Your task to perform on an android device: stop showing notifications on the lock screen Image 0: 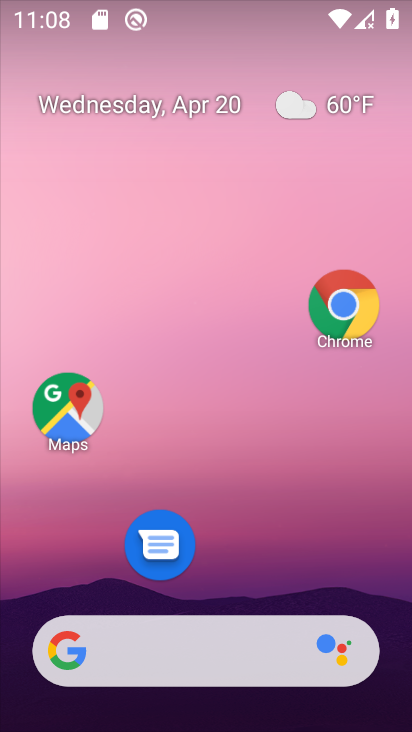
Step 0: press home button
Your task to perform on an android device: stop showing notifications on the lock screen Image 1: 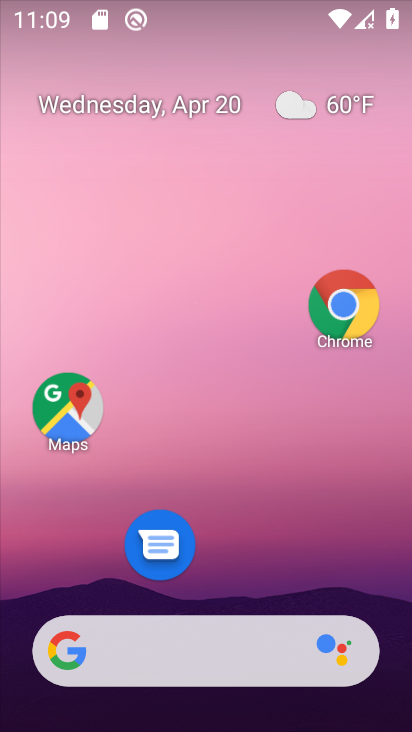
Step 1: drag from (274, 595) to (331, 202)
Your task to perform on an android device: stop showing notifications on the lock screen Image 2: 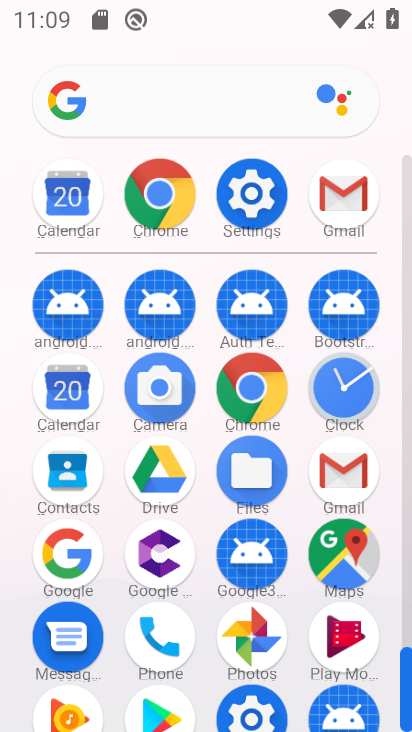
Step 2: click (255, 194)
Your task to perform on an android device: stop showing notifications on the lock screen Image 3: 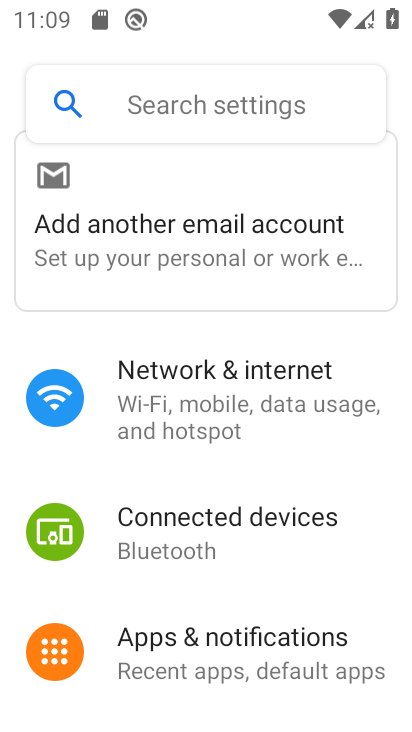
Step 3: drag from (226, 591) to (264, 371)
Your task to perform on an android device: stop showing notifications on the lock screen Image 4: 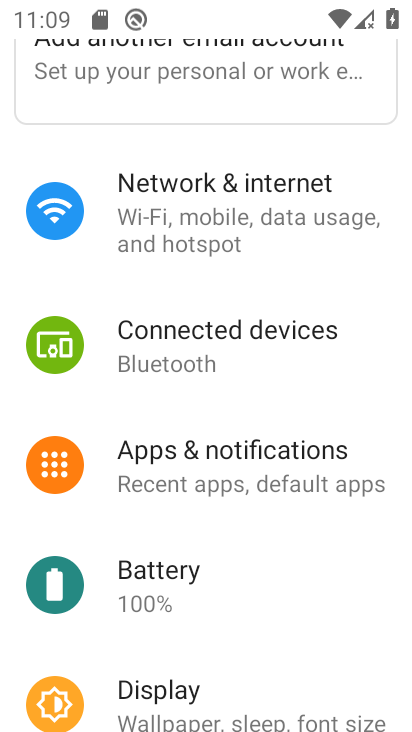
Step 4: click (282, 486)
Your task to perform on an android device: stop showing notifications on the lock screen Image 5: 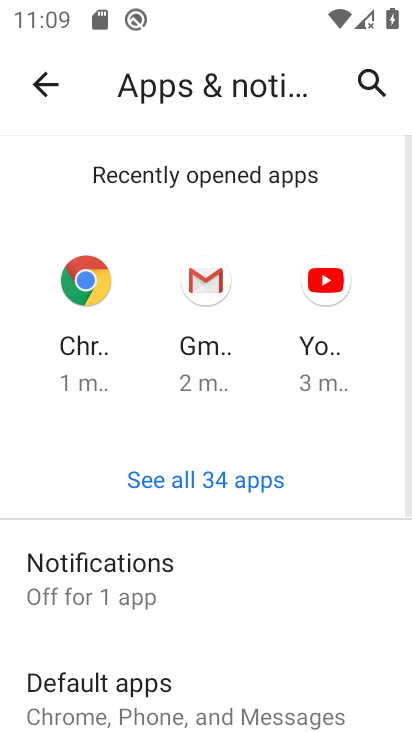
Step 5: click (200, 574)
Your task to perform on an android device: stop showing notifications on the lock screen Image 6: 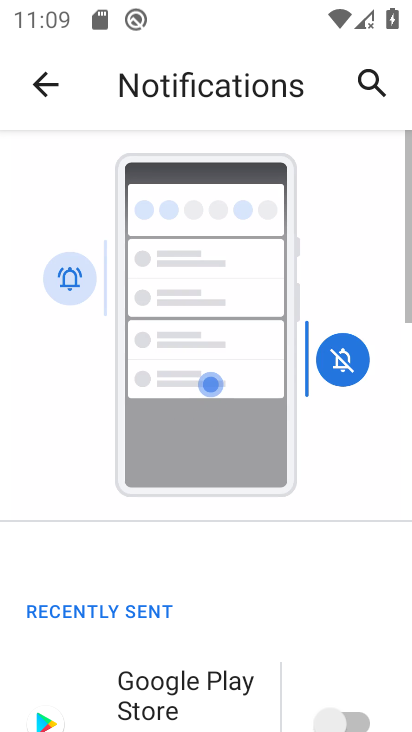
Step 6: drag from (200, 574) to (240, 203)
Your task to perform on an android device: stop showing notifications on the lock screen Image 7: 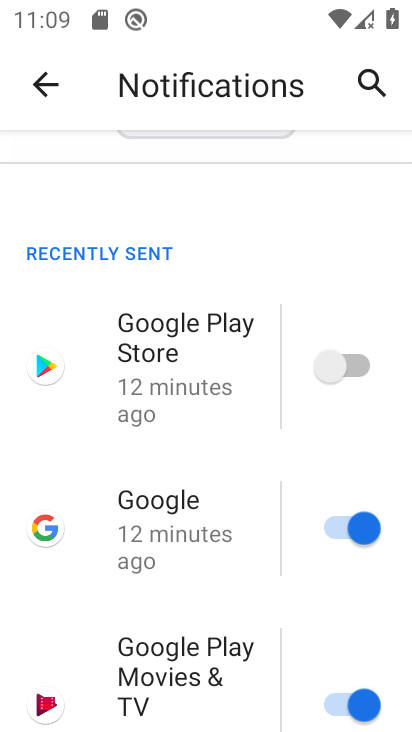
Step 7: drag from (197, 627) to (260, 259)
Your task to perform on an android device: stop showing notifications on the lock screen Image 8: 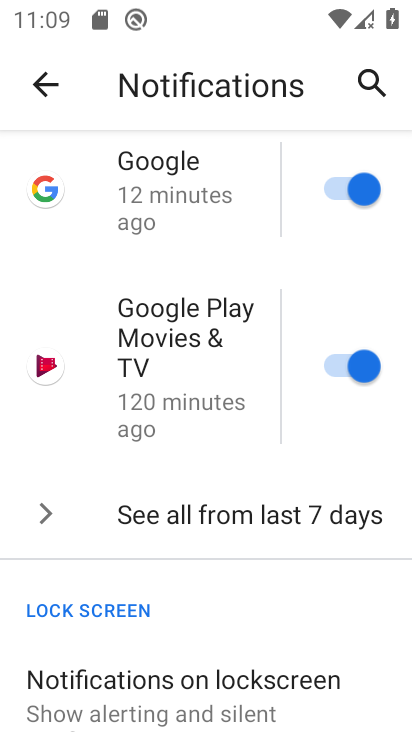
Step 8: drag from (158, 607) to (221, 198)
Your task to perform on an android device: stop showing notifications on the lock screen Image 9: 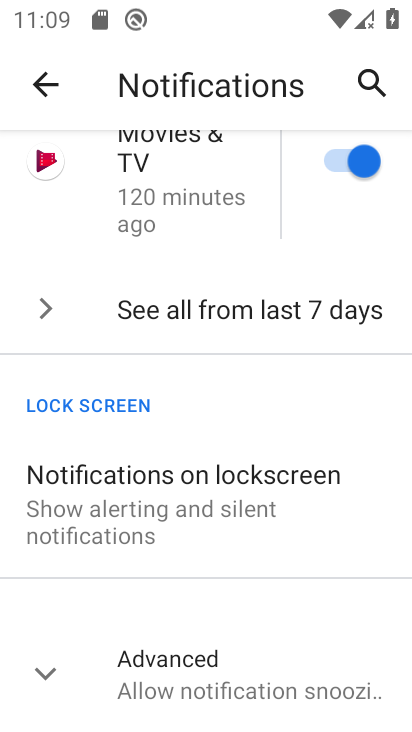
Step 9: click (232, 512)
Your task to perform on an android device: stop showing notifications on the lock screen Image 10: 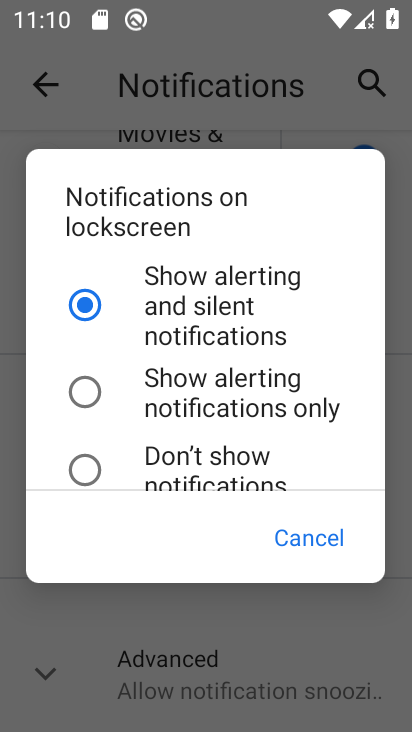
Step 10: click (77, 463)
Your task to perform on an android device: stop showing notifications on the lock screen Image 11: 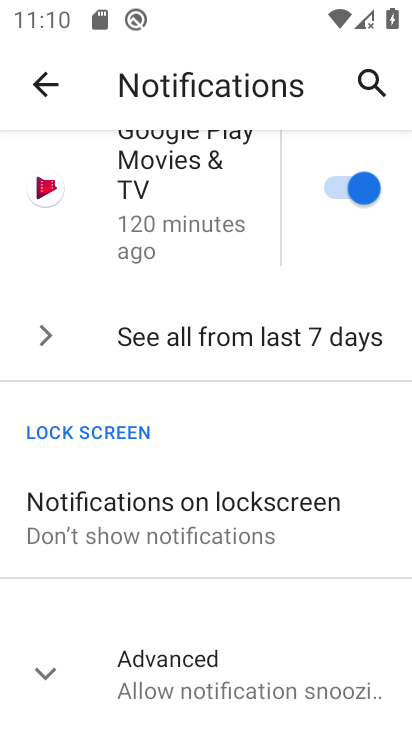
Step 11: task complete